Your task to perform on an android device: open app "Google Keep" (install if not already installed) Image 0: 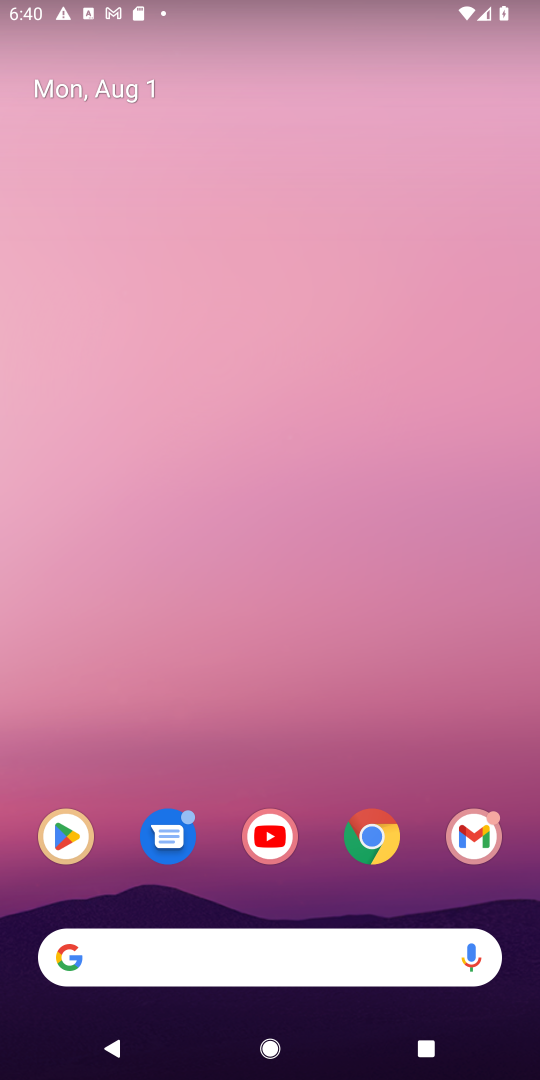
Step 0: press home button
Your task to perform on an android device: open app "Google Keep" (install if not already installed) Image 1: 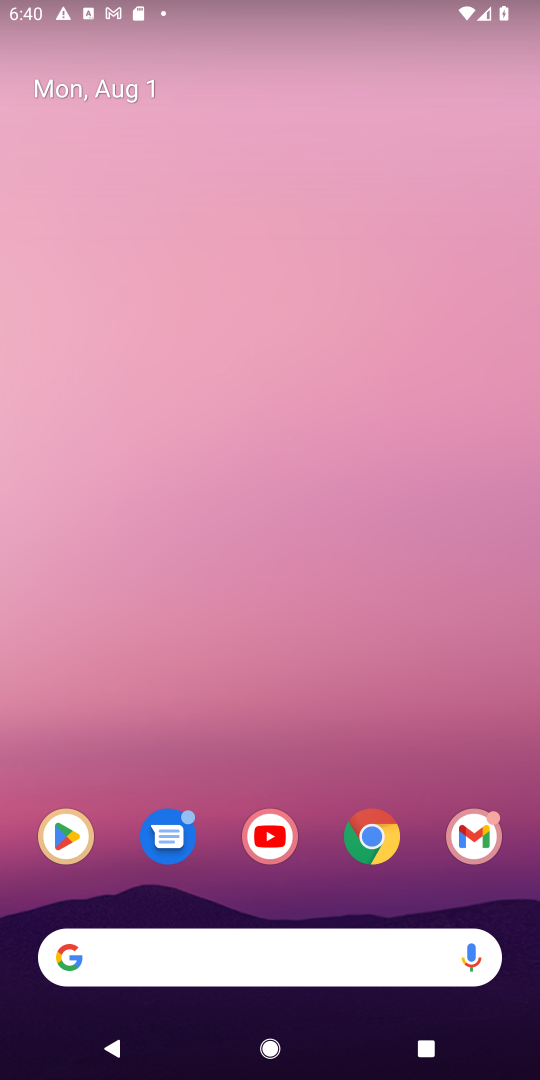
Step 1: click (66, 837)
Your task to perform on an android device: open app "Google Keep" (install if not already installed) Image 2: 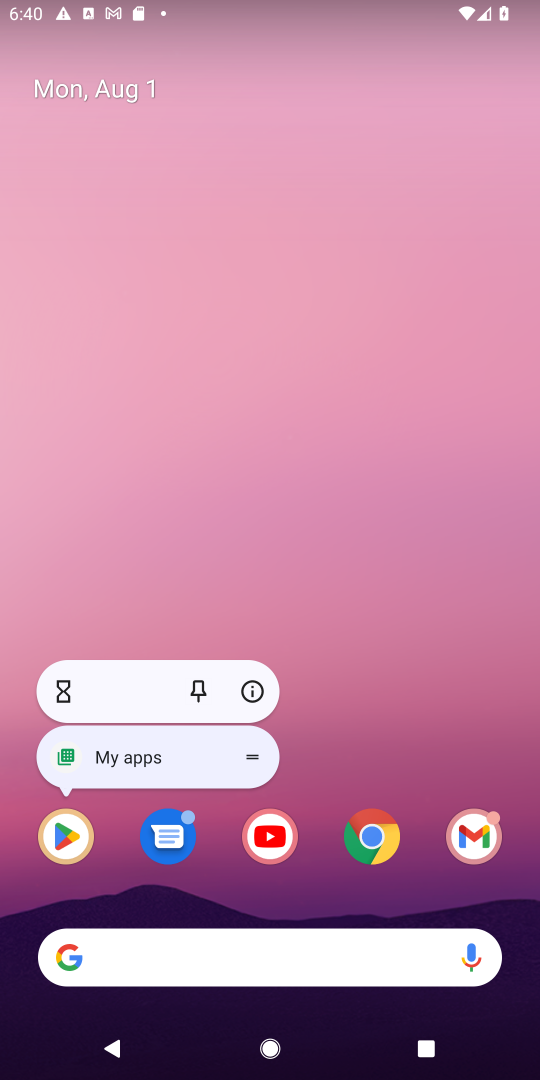
Step 2: click (69, 834)
Your task to perform on an android device: open app "Google Keep" (install if not already installed) Image 3: 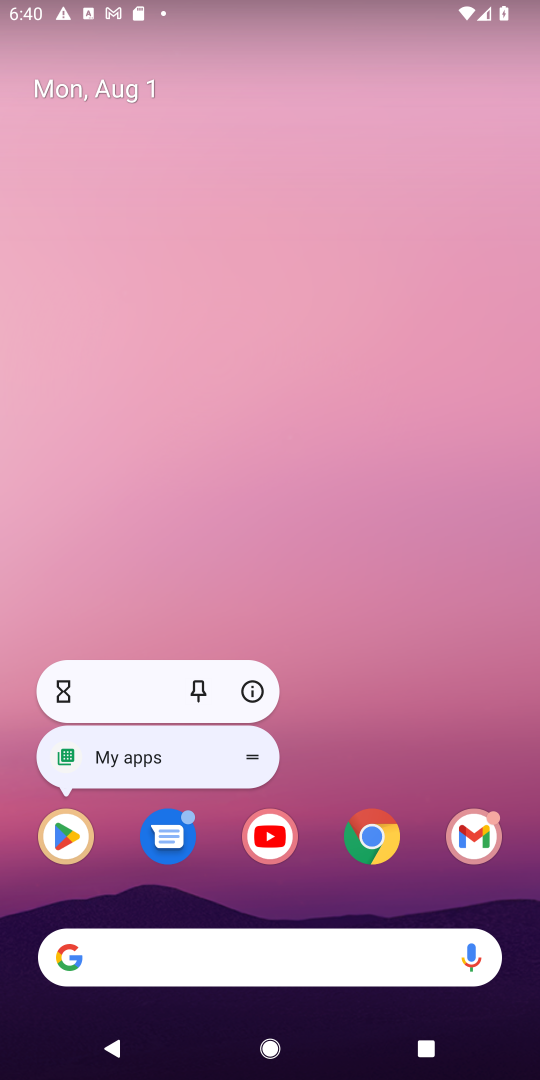
Step 3: click (69, 834)
Your task to perform on an android device: open app "Google Keep" (install if not already installed) Image 4: 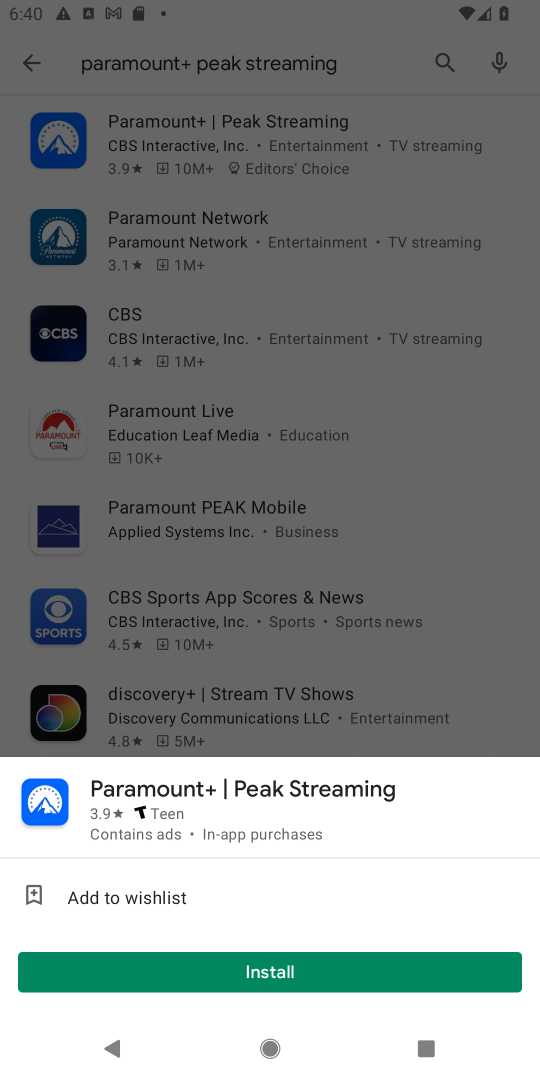
Step 4: click (69, 835)
Your task to perform on an android device: open app "Google Keep" (install if not already installed) Image 5: 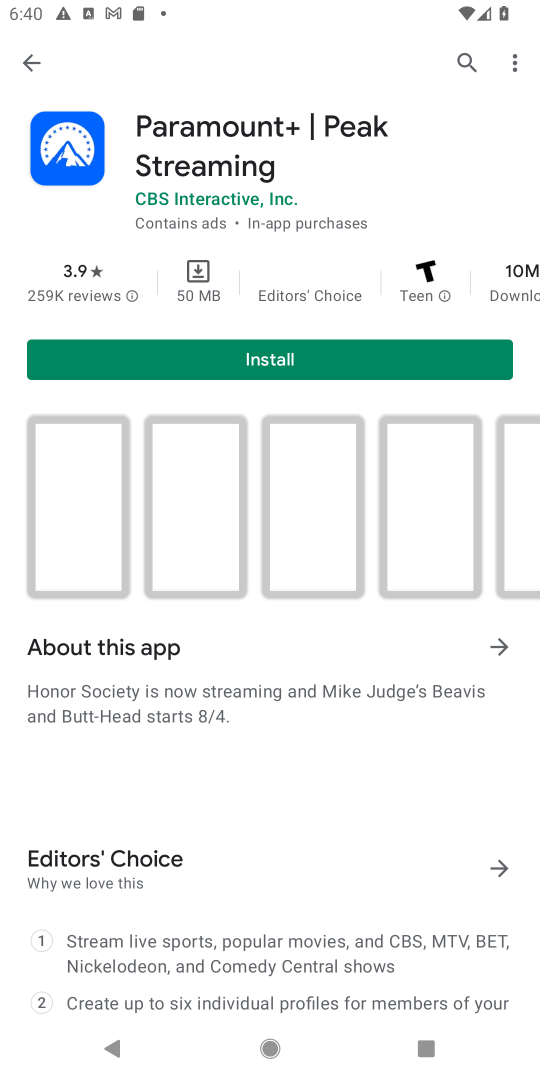
Step 5: click (429, 65)
Your task to perform on an android device: open app "Google Keep" (install if not already installed) Image 6: 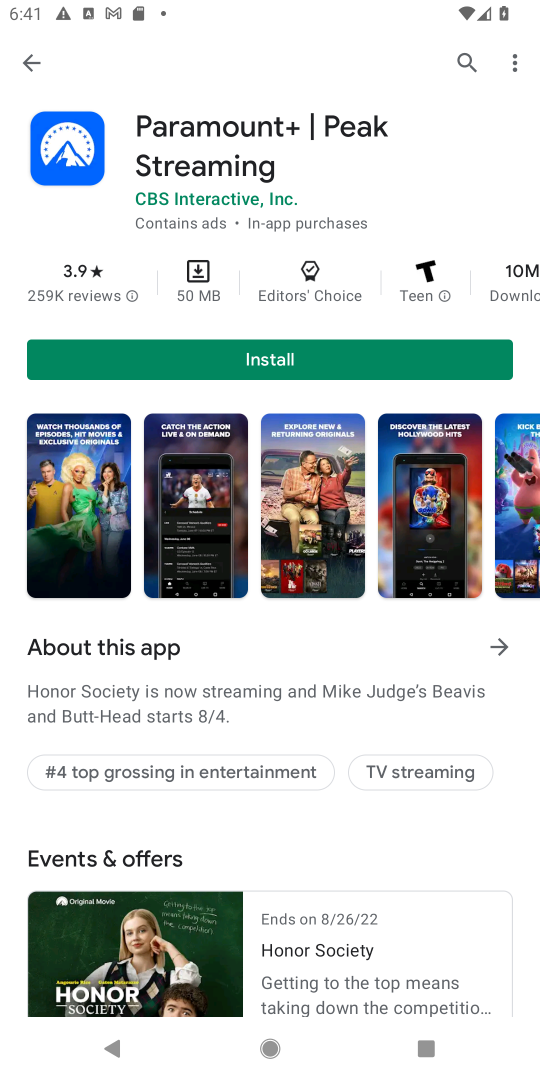
Step 6: click (466, 58)
Your task to perform on an android device: open app "Google Keep" (install if not already installed) Image 7: 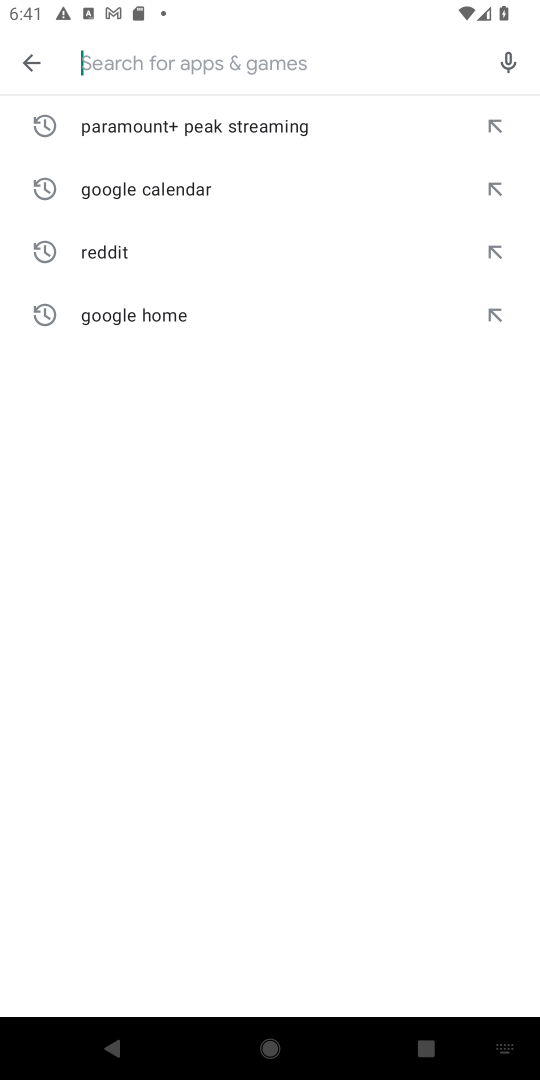
Step 7: type "Google Keep"
Your task to perform on an android device: open app "Google Keep" (install if not already installed) Image 8: 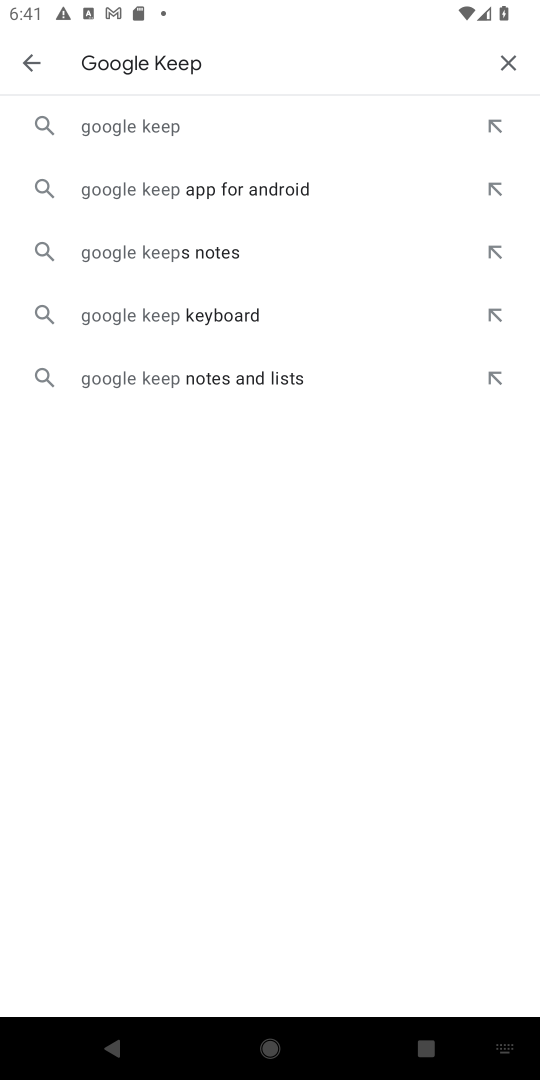
Step 8: click (132, 114)
Your task to perform on an android device: open app "Google Keep" (install if not already installed) Image 9: 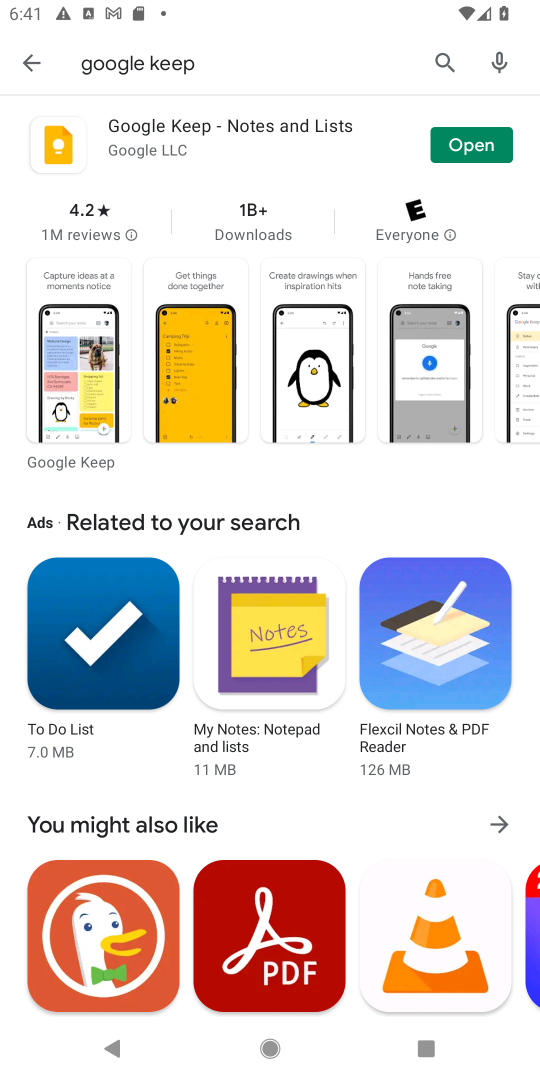
Step 9: click (468, 137)
Your task to perform on an android device: open app "Google Keep" (install if not already installed) Image 10: 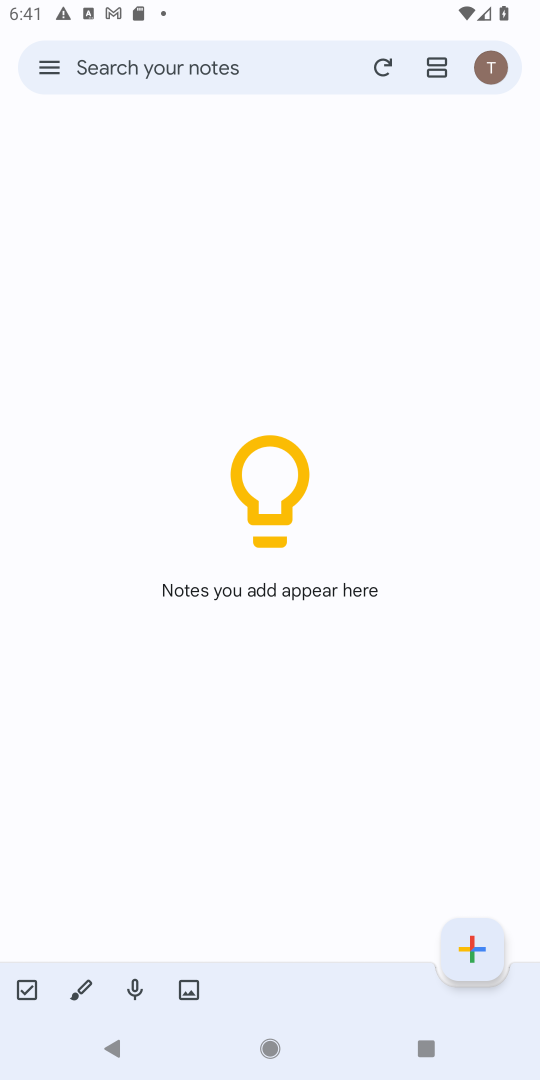
Step 10: task complete